Your task to perform on an android device: What is the news today? Image 0: 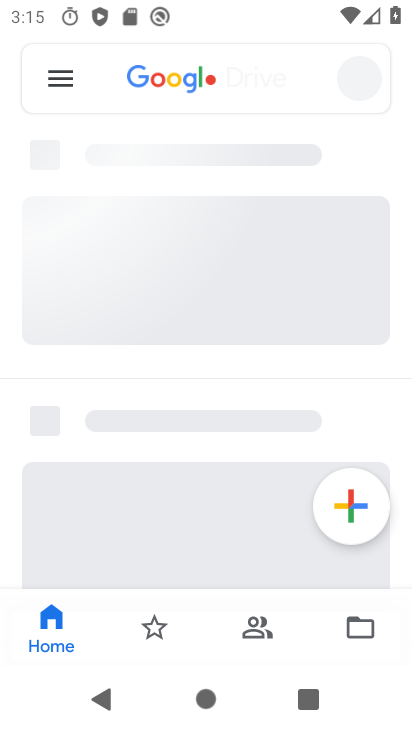
Step 0: click (205, 581)
Your task to perform on an android device: What is the news today? Image 1: 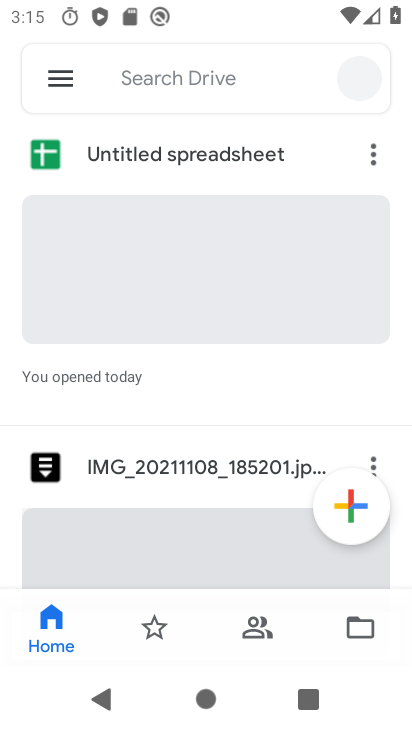
Step 1: press home button
Your task to perform on an android device: What is the news today? Image 2: 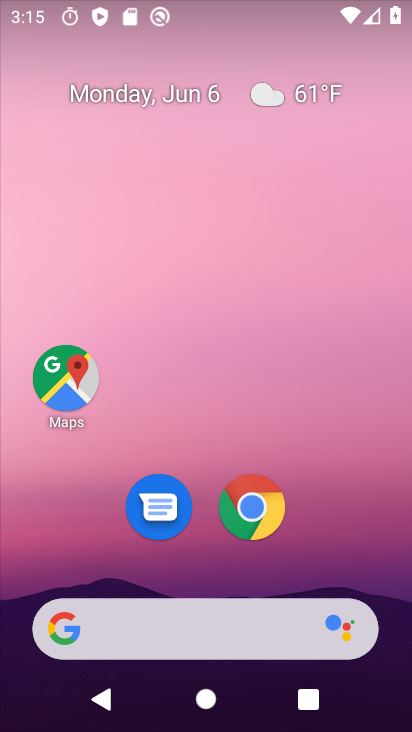
Step 2: drag from (199, 572) to (203, 164)
Your task to perform on an android device: What is the news today? Image 3: 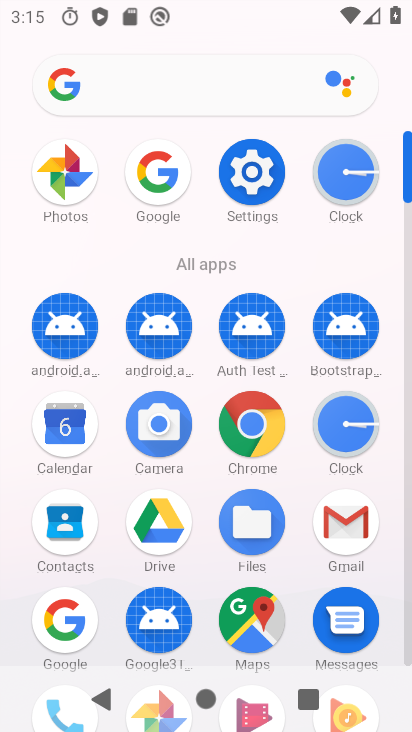
Step 3: click (60, 621)
Your task to perform on an android device: What is the news today? Image 4: 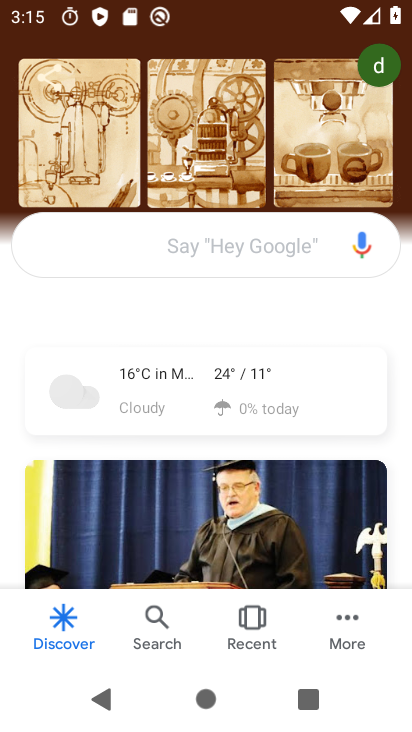
Step 4: click (179, 256)
Your task to perform on an android device: What is the news today? Image 5: 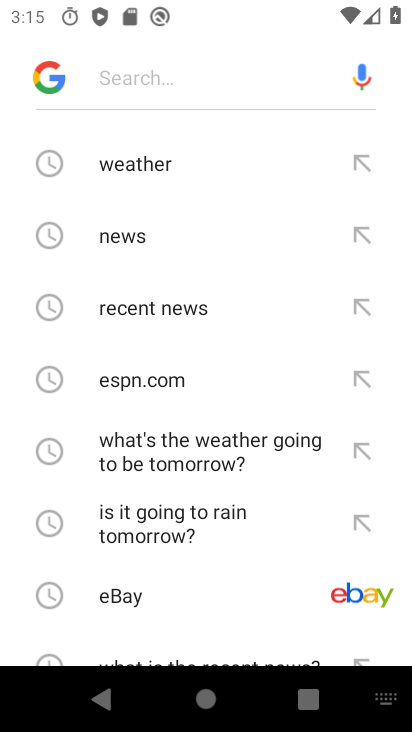
Step 5: click (147, 239)
Your task to perform on an android device: What is the news today? Image 6: 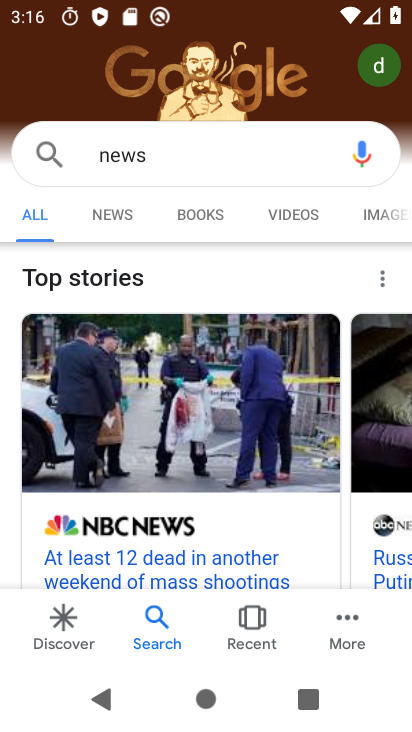
Step 6: click (119, 215)
Your task to perform on an android device: What is the news today? Image 7: 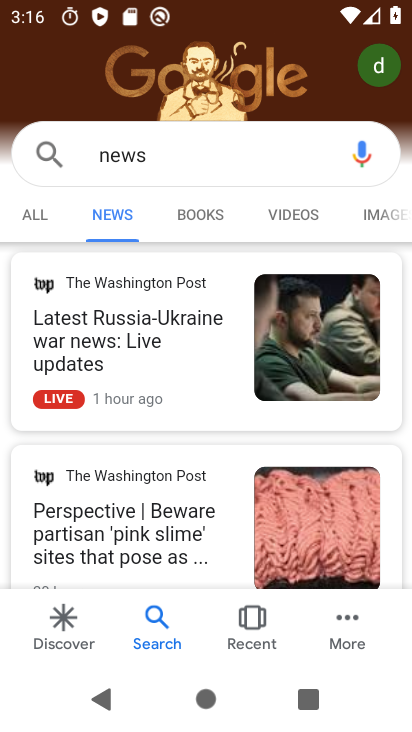
Step 7: task complete